Your task to perform on an android device: change notification settings in the gmail app Image 0: 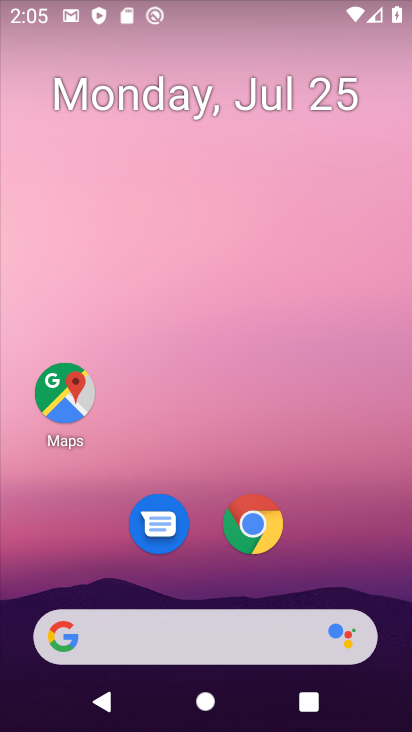
Step 0: drag from (207, 632) to (321, 91)
Your task to perform on an android device: change notification settings in the gmail app Image 1: 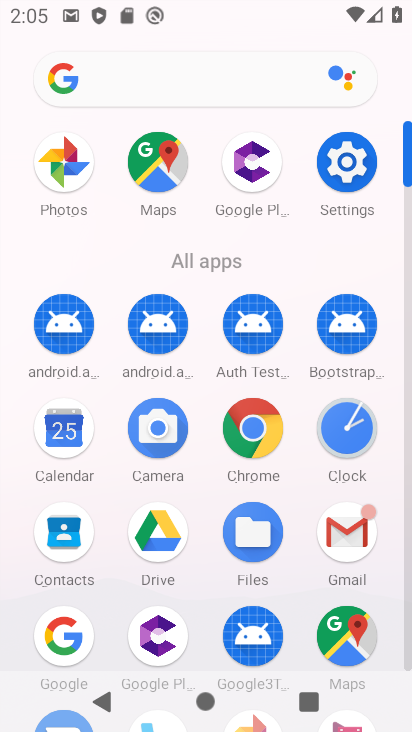
Step 1: click (351, 540)
Your task to perform on an android device: change notification settings in the gmail app Image 2: 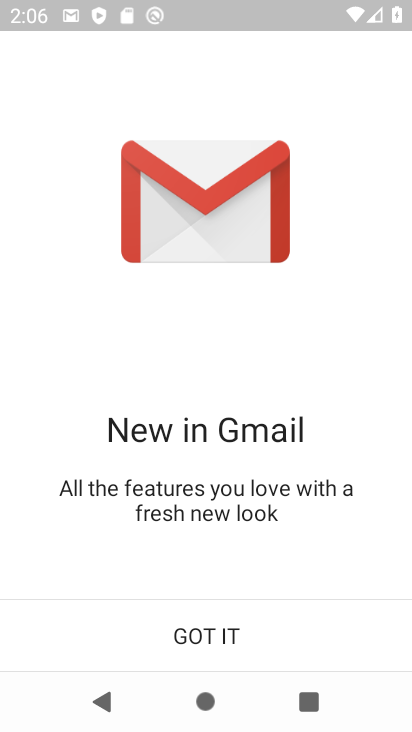
Step 2: click (222, 642)
Your task to perform on an android device: change notification settings in the gmail app Image 3: 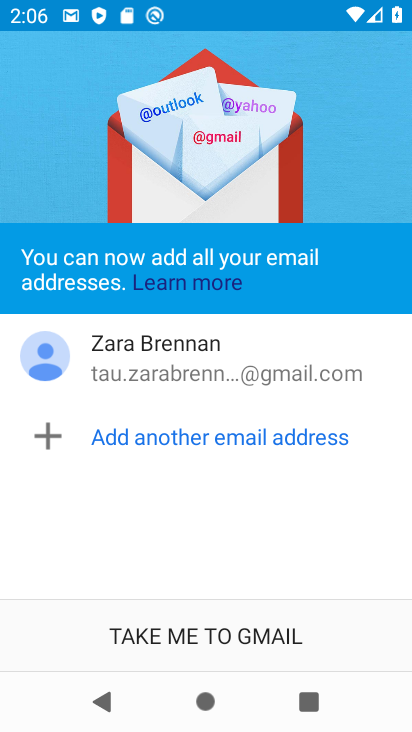
Step 3: click (225, 640)
Your task to perform on an android device: change notification settings in the gmail app Image 4: 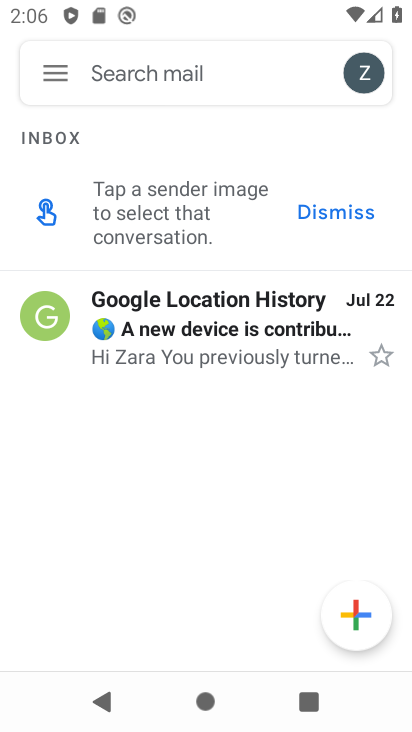
Step 4: click (54, 67)
Your task to perform on an android device: change notification settings in the gmail app Image 5: 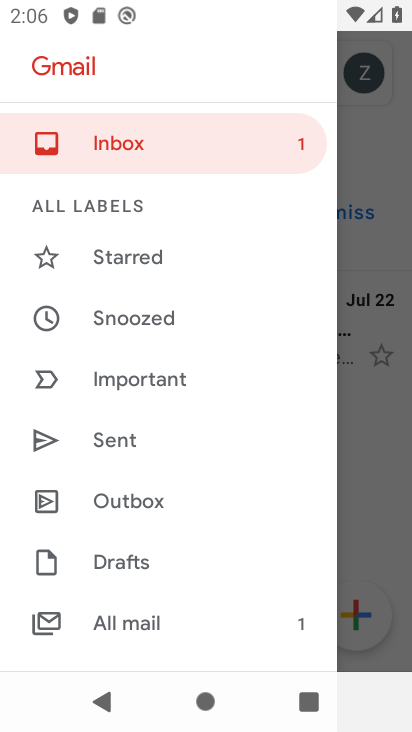
Step 5: drag from (196, 577) to (257, 179)
Your task to perform on an android device: change notification settings in the gmail app Image 6: 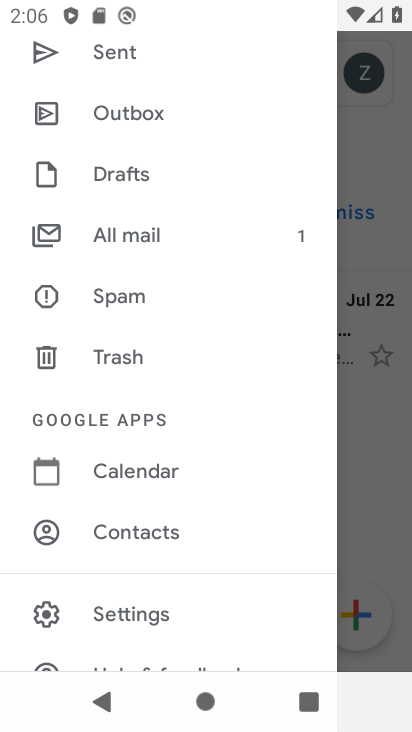
Step 6: drag from (222, 604) to (259, 57)
Your task to perform on an android device: change notification settings in the gmail app Image 7: 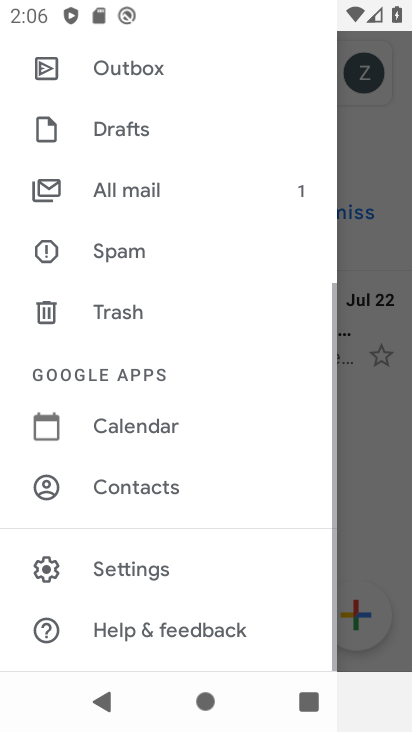
Step 7: click (144, 572)
Your task to perform on an android device: change notification settings in the gmail app Image 8: 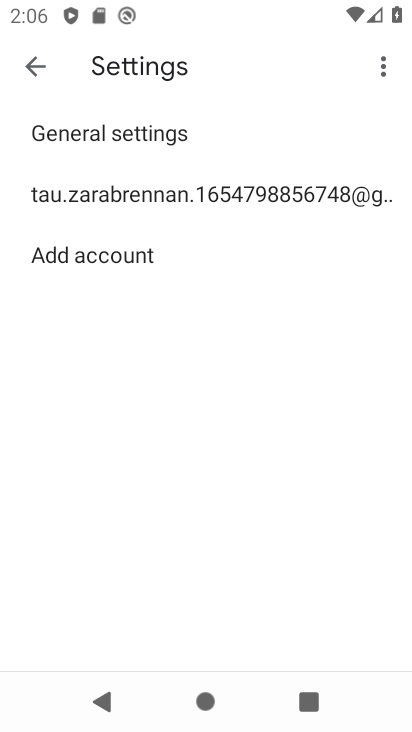
Step 8: click (257, 191)
Your task to perform on an android device: change notification settings in the gmail app Image 9: 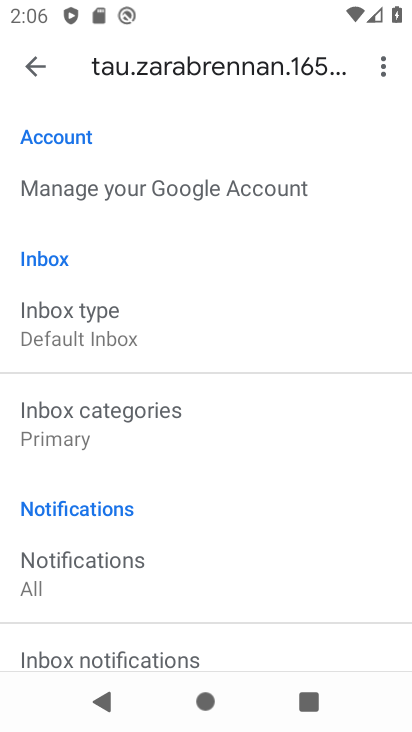
Step 9: click (97, 566)
Your task to perform on an android device: change notification settings in the gmail app Image 10: 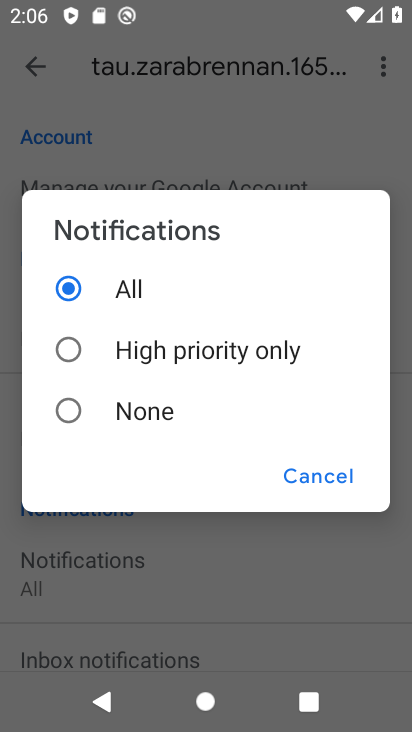
Step 10: click (63, 413)
Your task to perform on an android device: change notification settings in the gmail app Image 11: 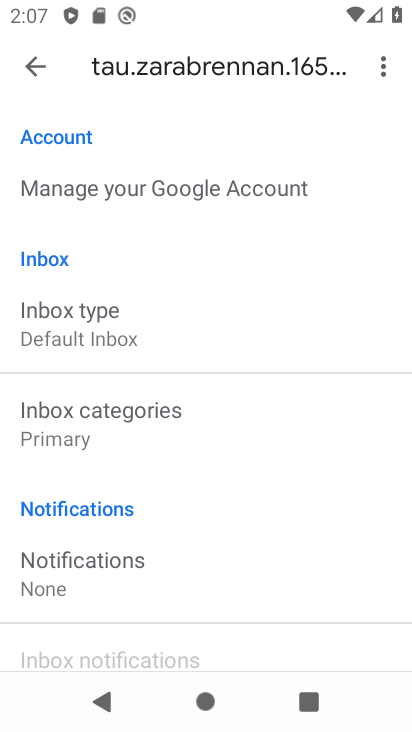
Step 11: task complete